Your task to perform on an android device: turn off picture-in-picture Image 0: 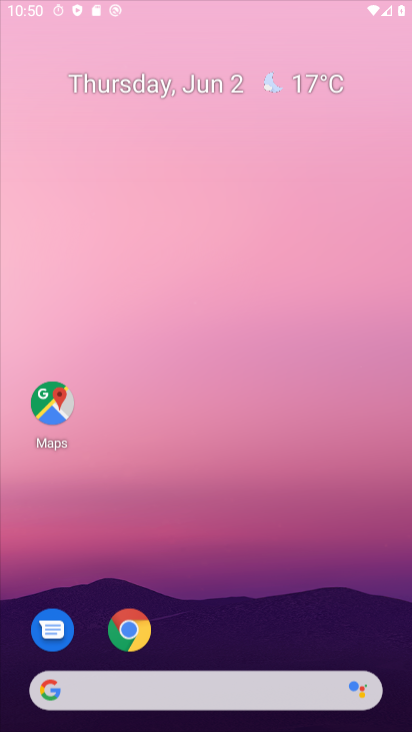
Step 0: drag from (219, 625) to (343, 33)
Your task to perform on an android device: turn off picture-in-picture Image 1: 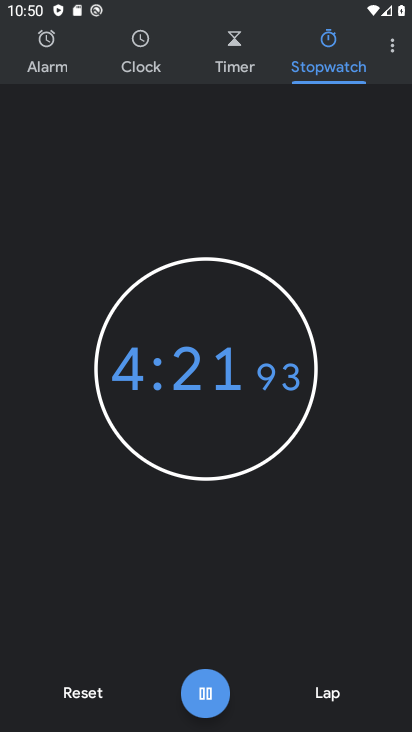
Step 1: press home button
Your task to perform on an android device: turn off picture-in-picture Image 2: 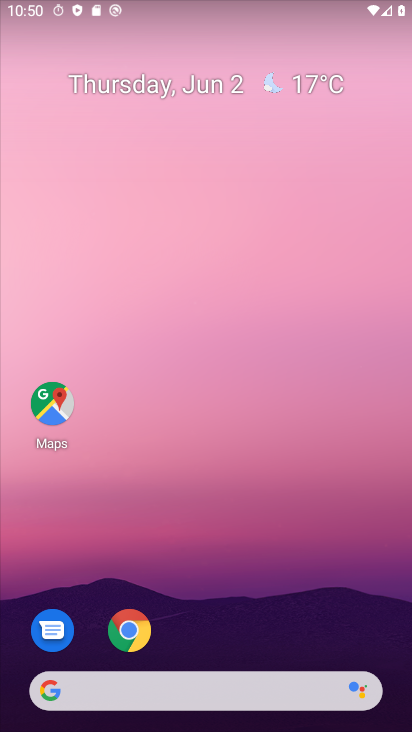
Step 2: click (140, 638)
Your task to perform on an android device: turn off picture-in-picture Image 3: 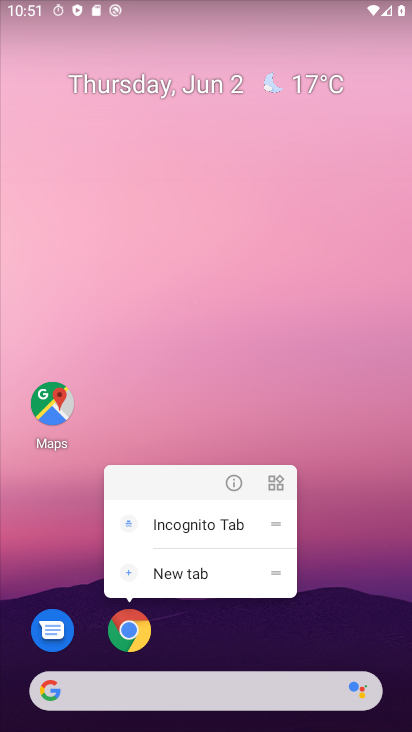
Step 3: click (229, 487)
Your task to perform on an android device: turn off picture-in-picture Image 4: 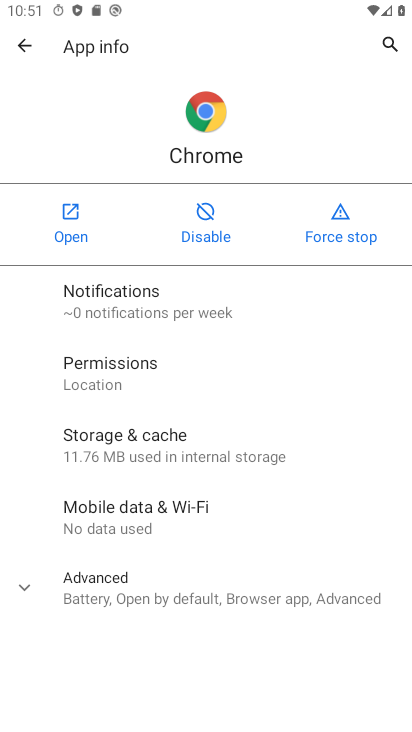
Step 4: click (146, 588)
Your task to perform on an android device: turn off picture-in-picture Image 5: 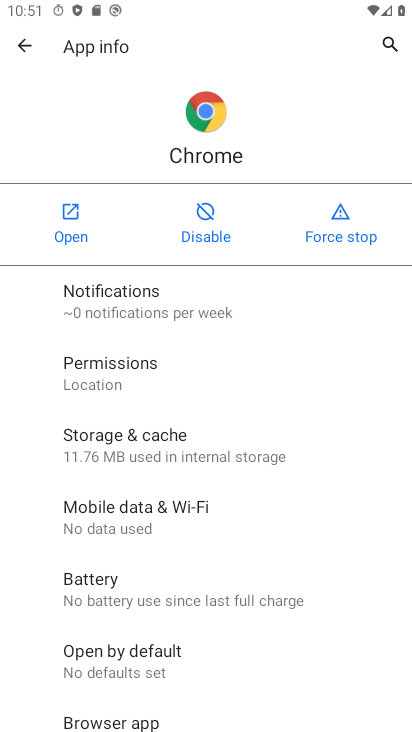
Step 5: drag from (155, 649) to (222, 255)
Your task to perform on an android device: turn off picture-in-picture Image 6: 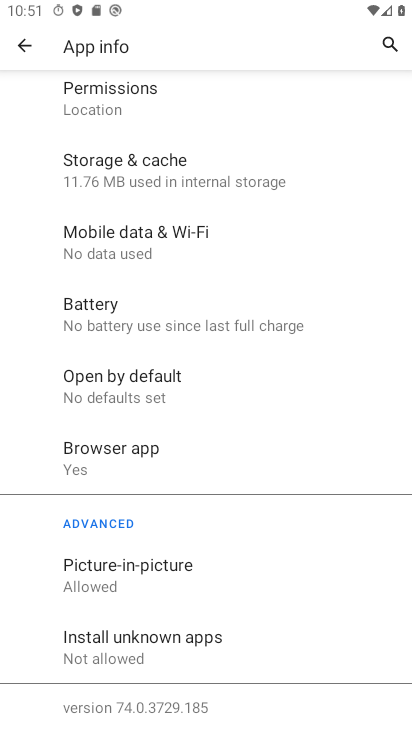
Step 6: click (156, 595)
Your task to perform on an android device: turn off picture-in-picture Image 7: 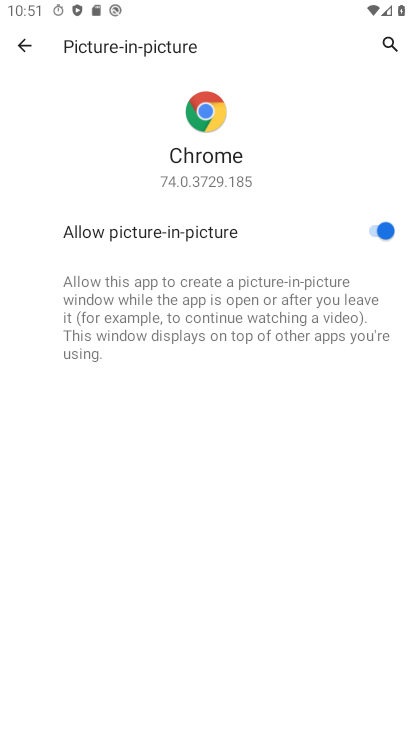
Step 7: click (366, 226)
Your task to perform on an android device: turn off picture-in-picture Image 8: 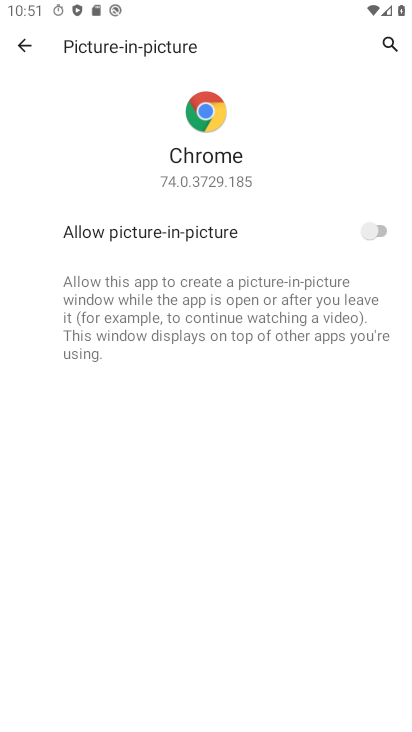
Step 8: task complete